Your task to perform on an android device: move a message to another label in the gmail app Image 0: 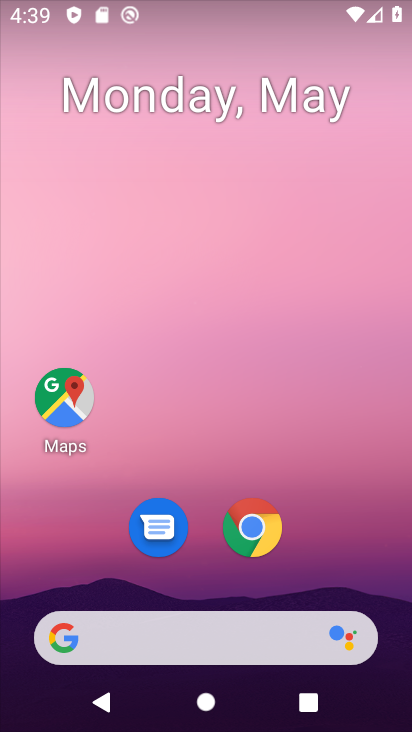
Step 0: drag from (387, 635) to (329, 233)
Your task to perform on an android device: move a message to another label in the gmail app Image 1: 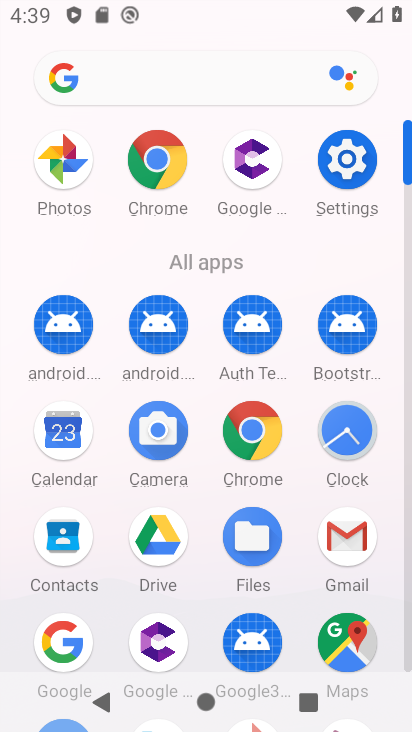
Step 1: click (346, 525)
Your task to perform on an android device: move a message to another label in the gmail app Image 2: 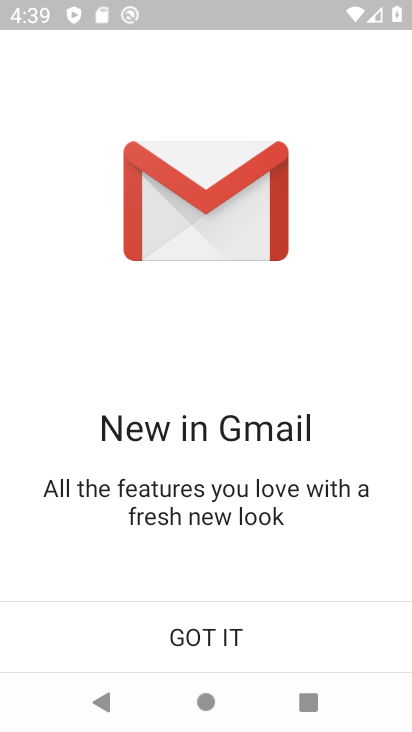
Step 2: click (220, 630)
Your task to perform on an android device: move a message to another label in the gmail app Image 3: 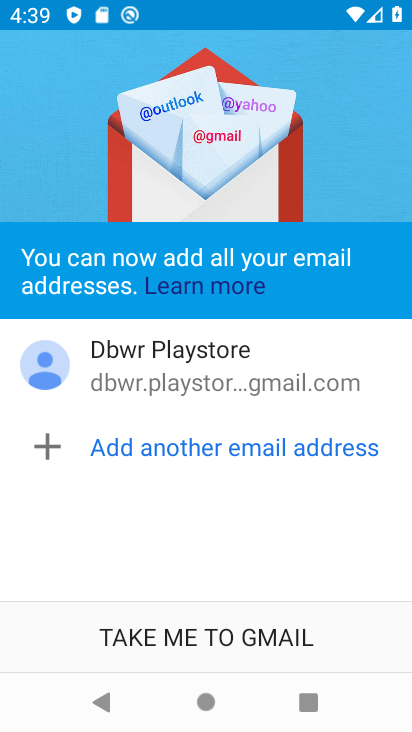
Step 3: click (231, 638)
Your task to perform on an android device: move a message to another label in the gmail app Image 4: 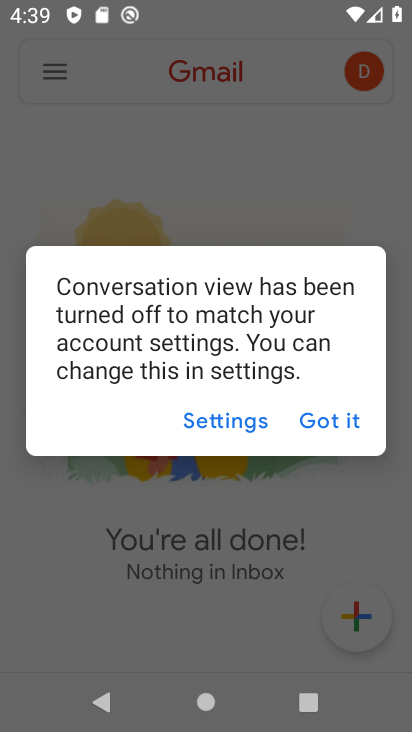
Step 4: click (318, 426)
Your task to perform on an android device: move a message to another label in the gmail app Image 5: 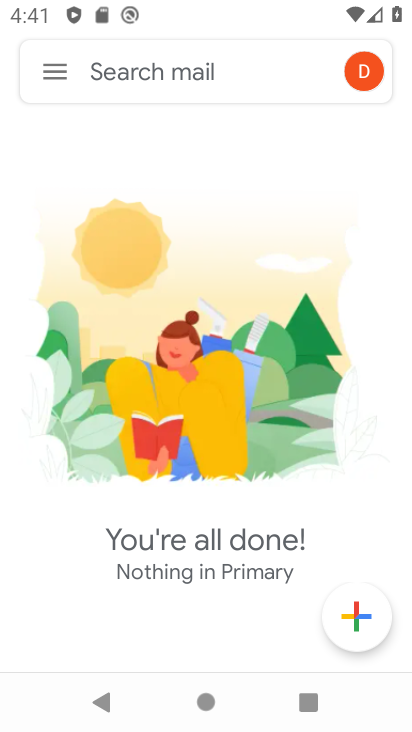
Step 5: click (64, 63)
Your task to perform on an android device: move a message to another label in the gmail app Image 6: 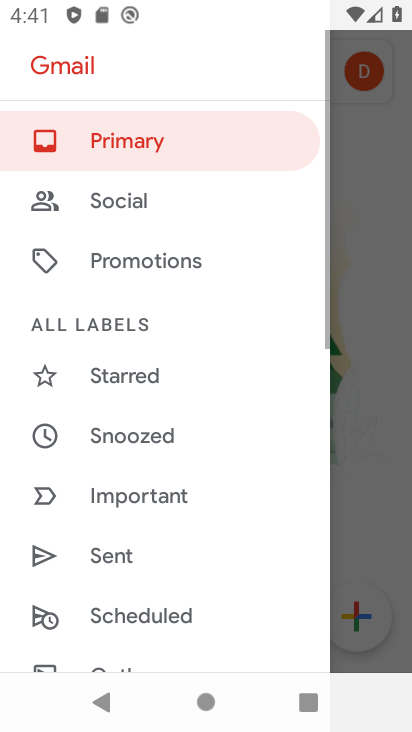
Step 6: click (142, 138)
Your task to perform on an android device: move a message to another label in the gmail app Image 7: 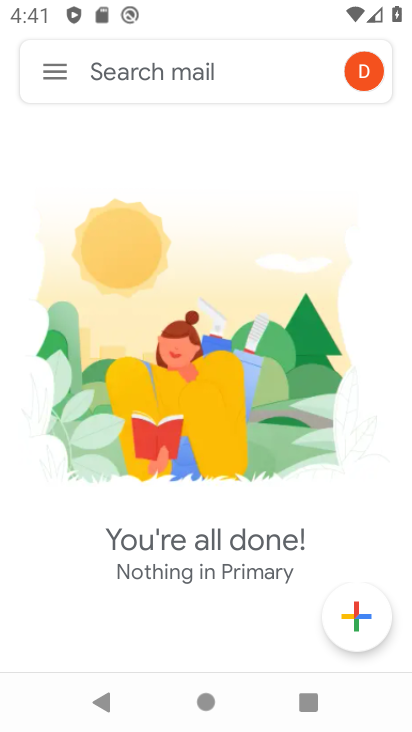
Step 7: task complete